Your task to perform on an android device: Open eBay Image 0: 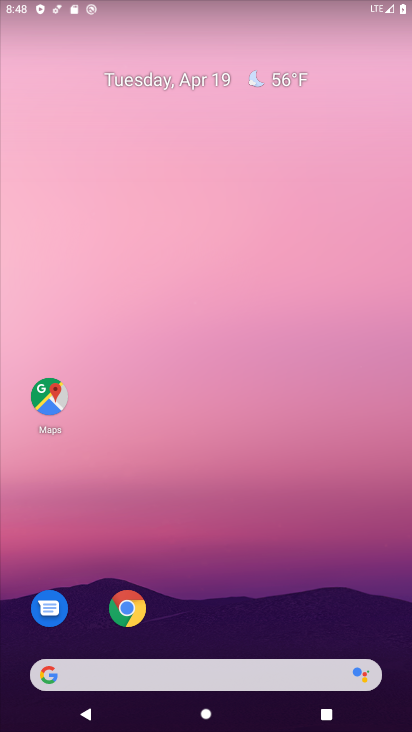
Step 0: click (126, 610)
Your task to perform on an android device: Open eBay Image 1: 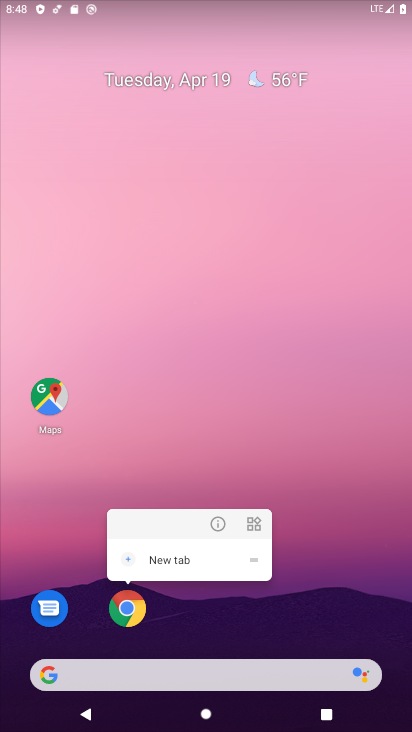
Step 1: click (125, 609)
Your task to perform on an android device: Open eBay Image 2: 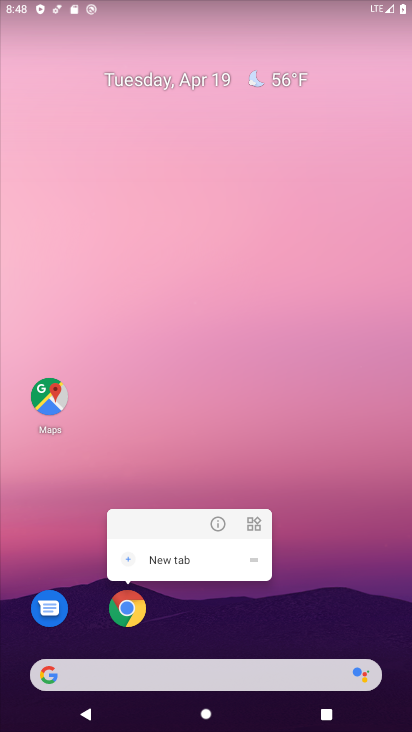
Step 2: click (125, 609)
Your task to perform on an android device: Open eBay Image 3: 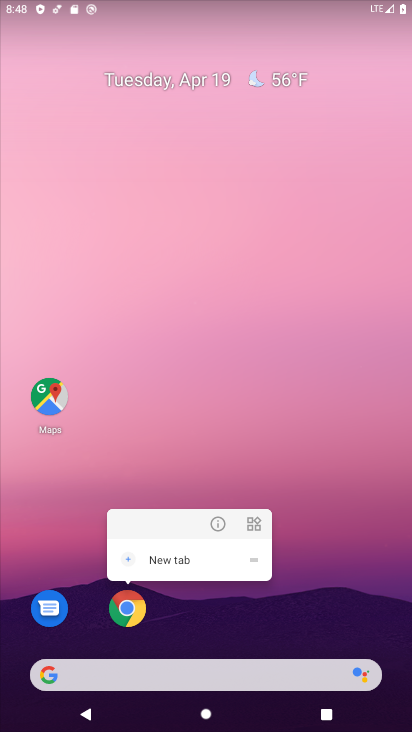
Step 3: click (132, 618)
Your task to perform on an android device: Open eBay Image 4: 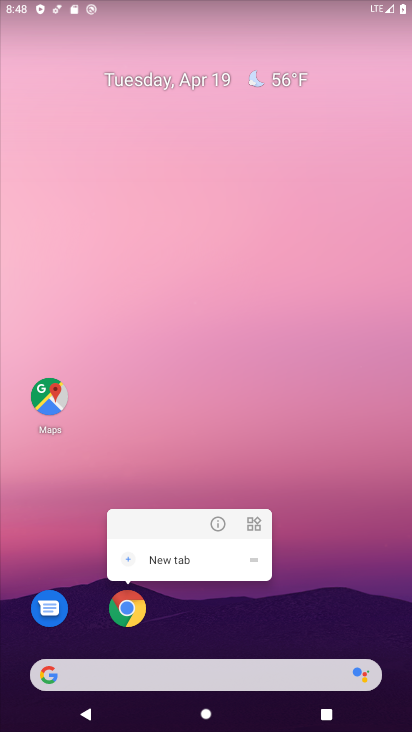
Step 4: click (122, 611)
Your task to perform on an android device: Open eBay Image 5: 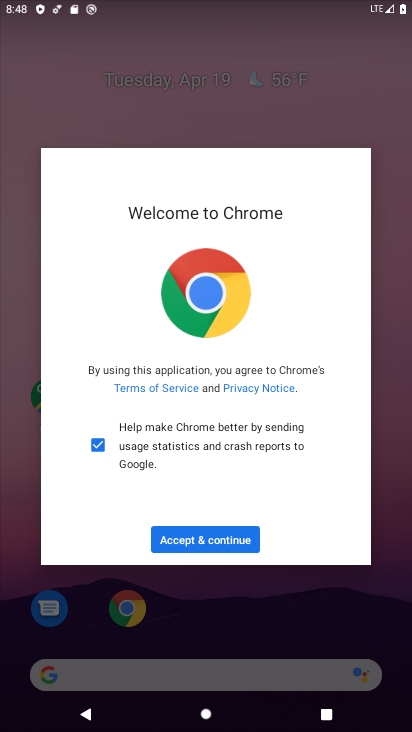
Step 5: click (203, 535)
Your task to perform on an android device: Open eBay Image 6: 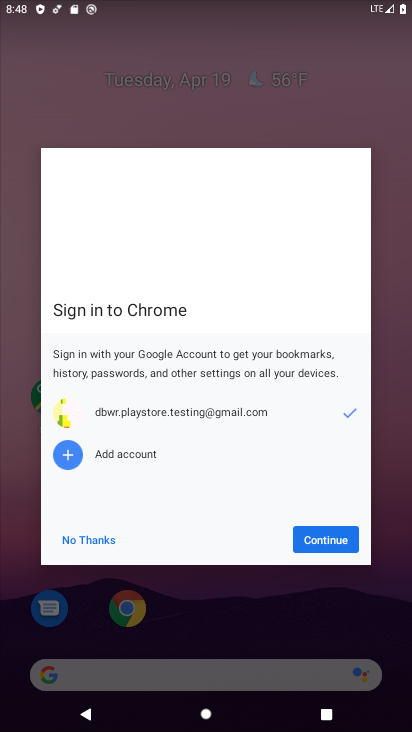
Step 6: click (347, 539)
Your task to perform on an android device: Open eBay Image 7: 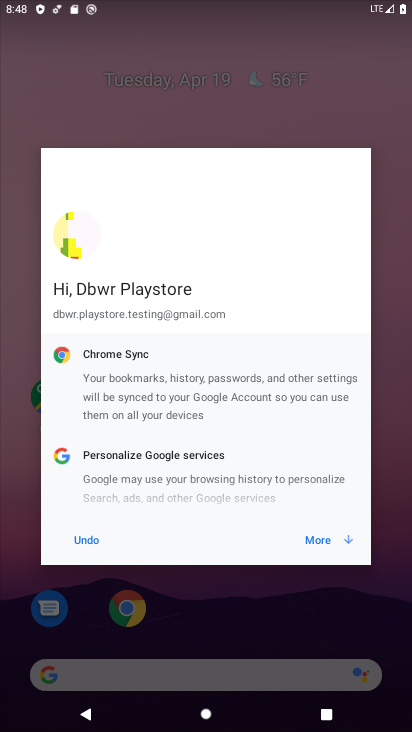
Step 7: click (332, 547)
Your task to perform on an android device: Open eBay Image 8: 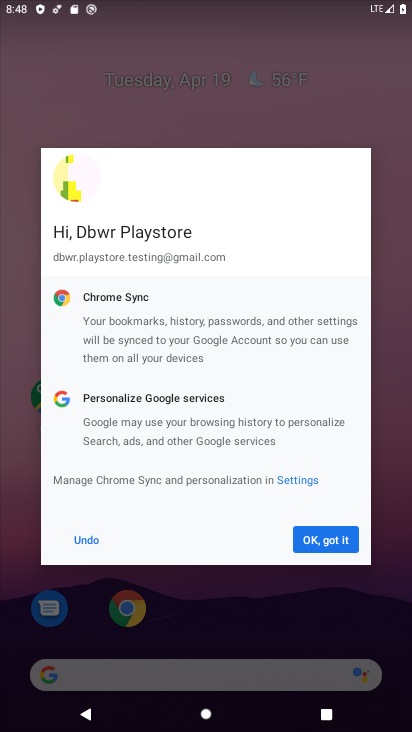
Step 8: click (324, 541)
Your task to perform on an android device: Open eBay Image 9: 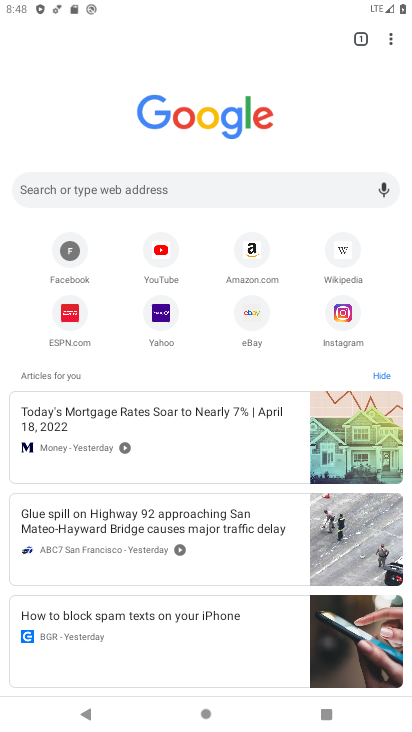
Step 9: click (252, 318)
Your task to perform on an android device: Open eBay Image 10: 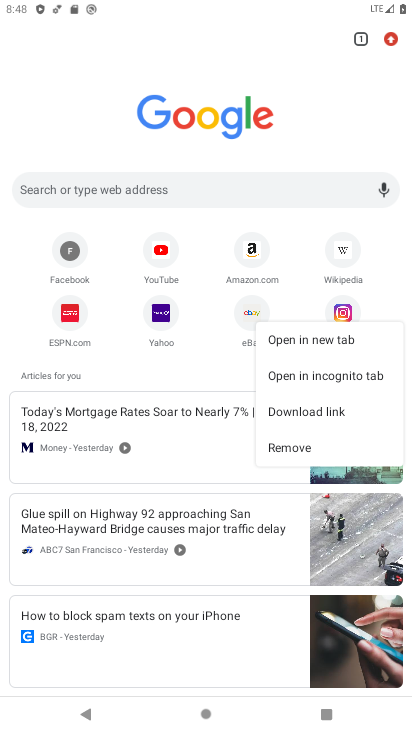
Step 10: click (252, 306)
Your task to perform on an android device: Open eBay Image 11: 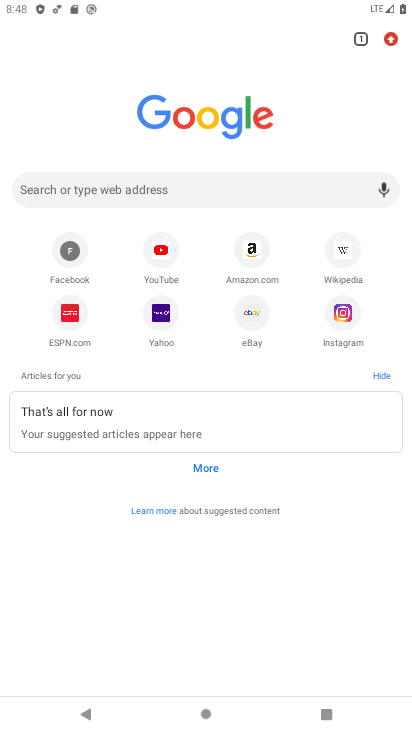
Step 11: click (250, 317)
Your task to perform on an android device: Open eBay Image 12: 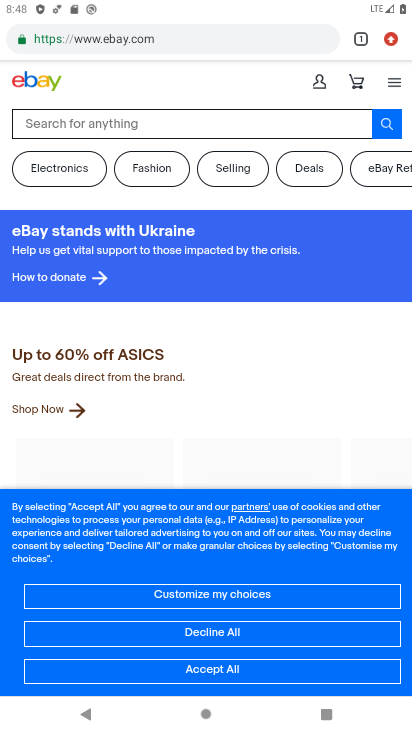
Step 12: task complete